Your task to perform on an android device: install app "Instagram" Image 0: 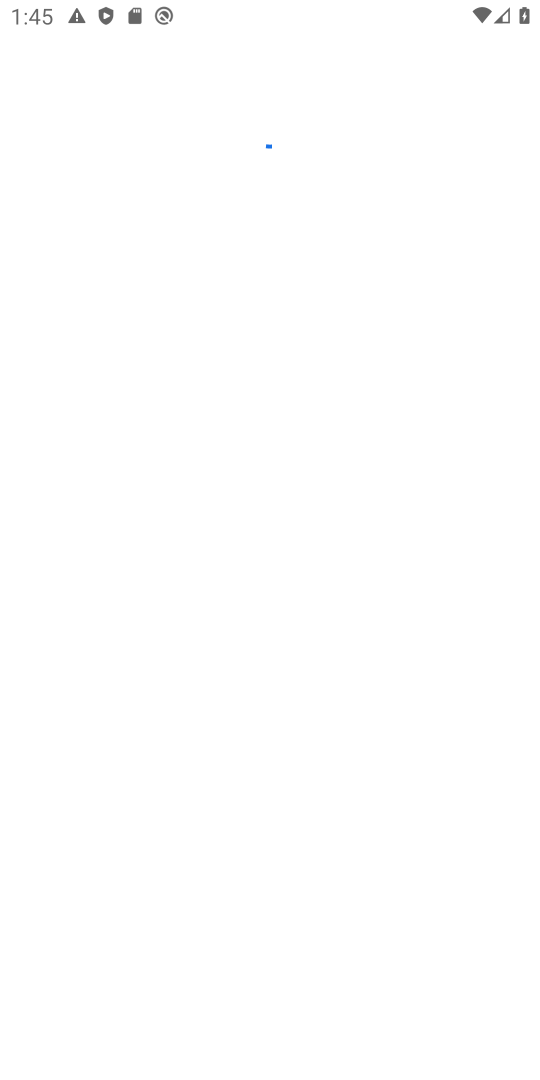
Step 0: press back button
Your task to perform on an android device: install app "Instagram" Image 1: 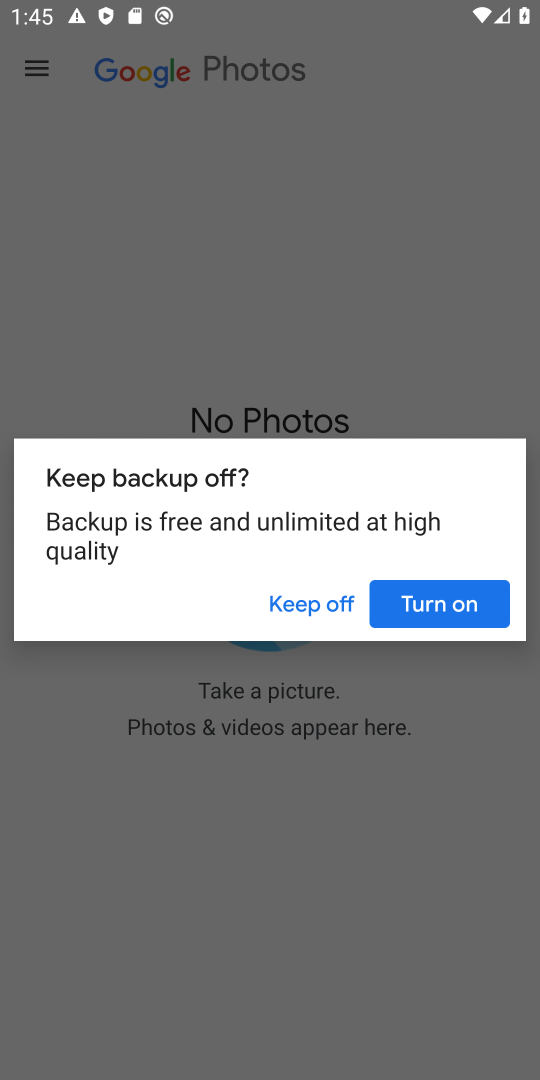
Step 1: press home button
Your task to perform on an android device: install app "Instagram" Image 2: 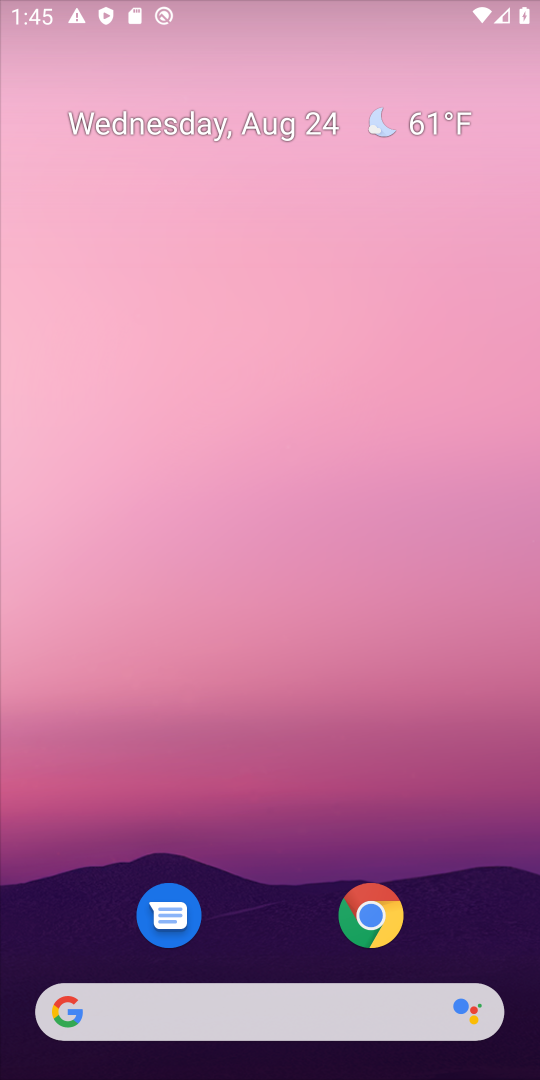
Step 2: drag from (250, 821) to (282, 182)
Your task to perform on an android device: install app "Instagram" Image 3: 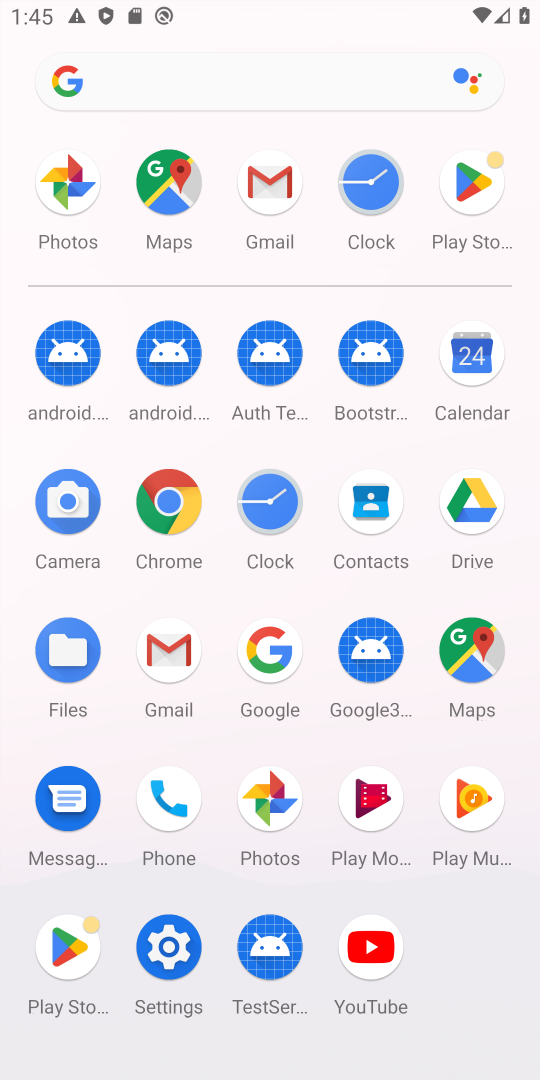
Step 3: click (455, 197)
Your task to perform on an android device: install app "Instagram" Image 4: 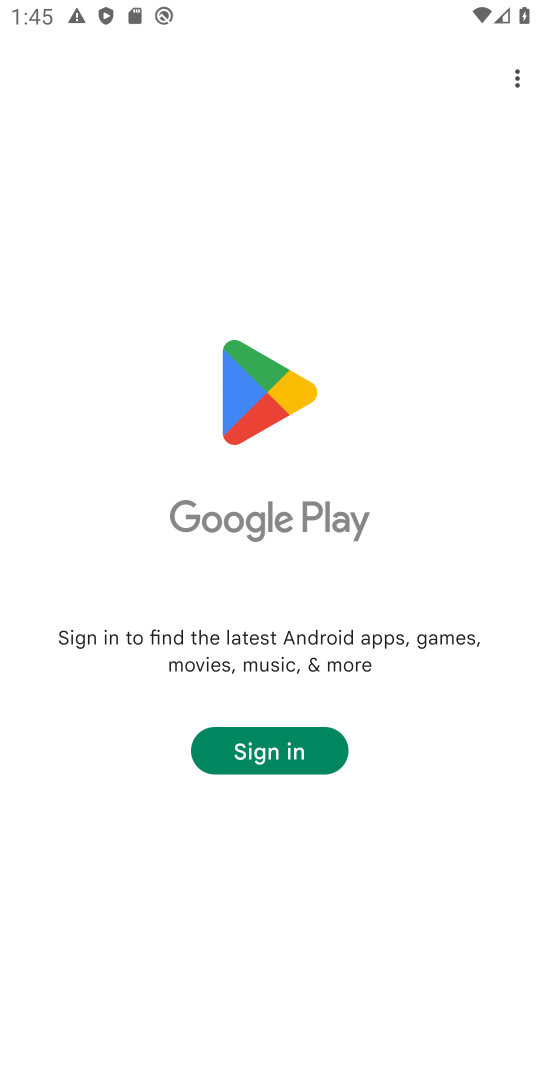
Step 4: task complete